Your task to perform on an android device: Open display settings Image 0: 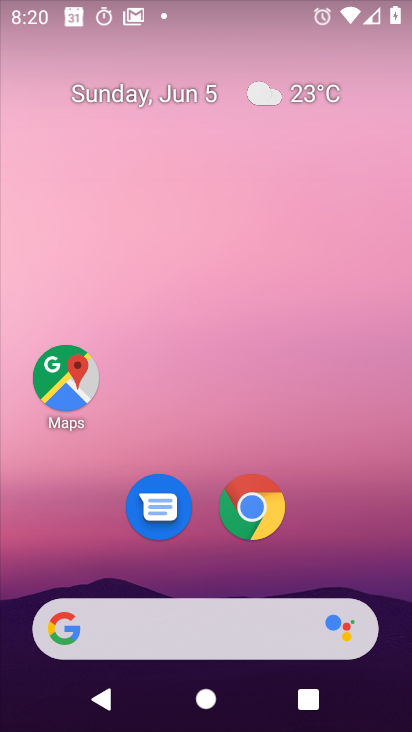
Step 0: drag from (227, 554) to (183, 31)
Your task to perform on an android device: Open display settings Image 1: 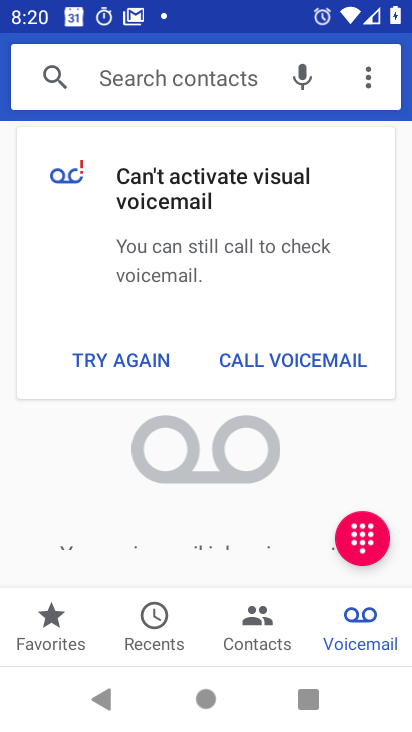
Step 1: press home button
Your task to perform on an android device: Open display settings Image 2: 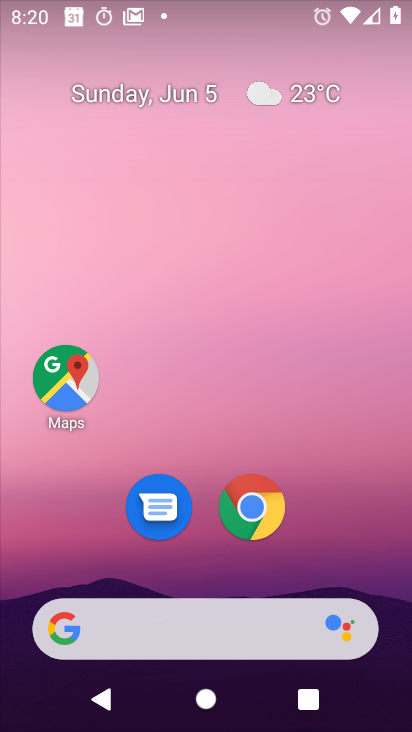
Step 2: drag from (267, 652) to (193, 153)
Your task to perform on an android device: Open display settings Image 3: 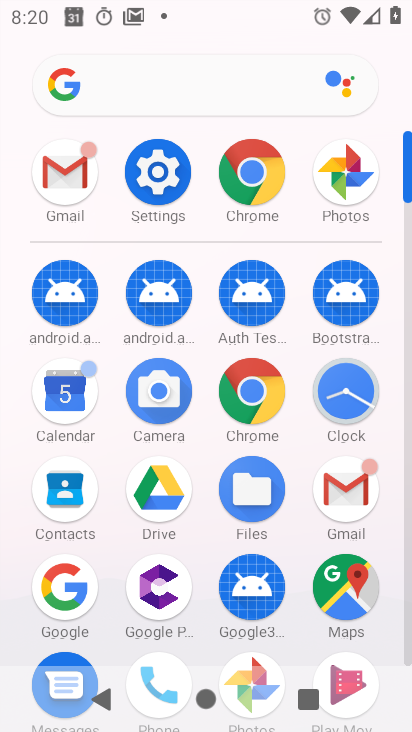
Step 3: click (136, 180)
Your task to perform on an android device: Open display settings Image 4: 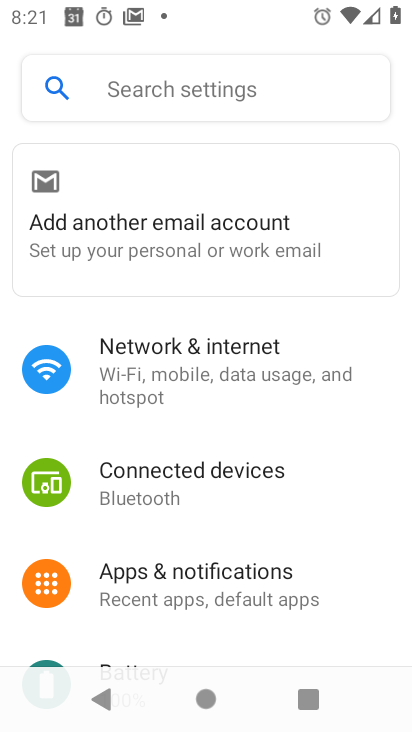
Step 4: drag from (172, 562) to (181, 370)
Your task to perform on an android device: Open display settings Image 5: 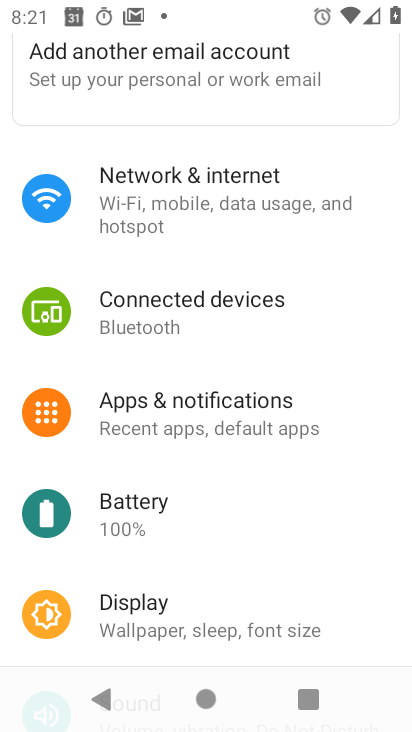
Step 5: click (169, 594)
Your task to perform on an android device: Open display settings Image 6: 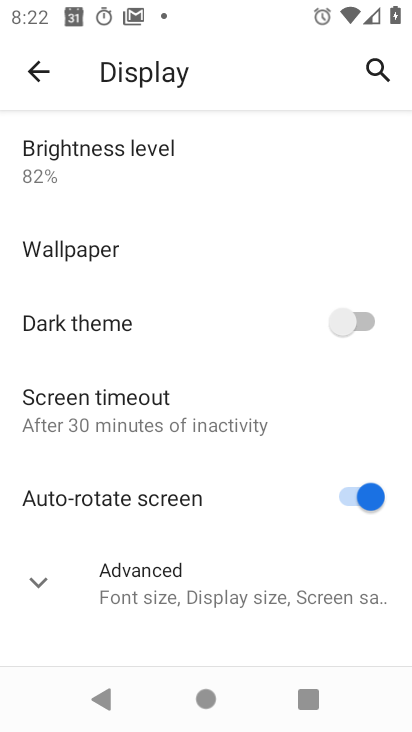
Step 6: task complete